Your task to perform on an android device: empty trash in the gmail app Image 0: 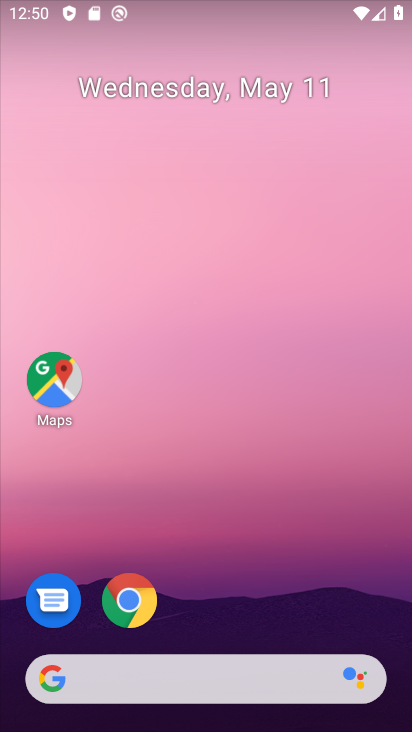
Step 0: drag from (266, 577) to (283, 198)
Your task to perform on an android device: empty trash in the gmail app Image 1: 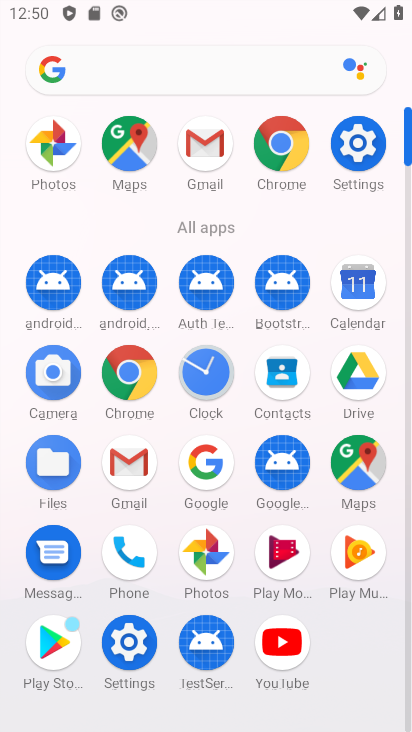
Step 1: click (217, 541)
Your task to perform on an android device: empty trash in the gmail app Image 2: 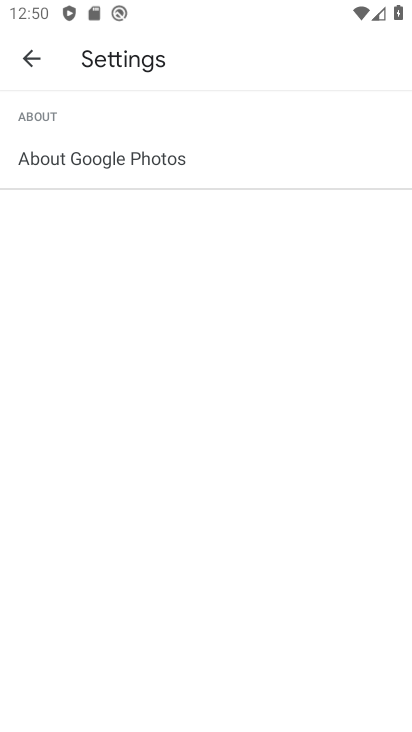
Step 2: click (34, 53)
Your task to perform on an android device: empty trash in the gmail app Image 3: 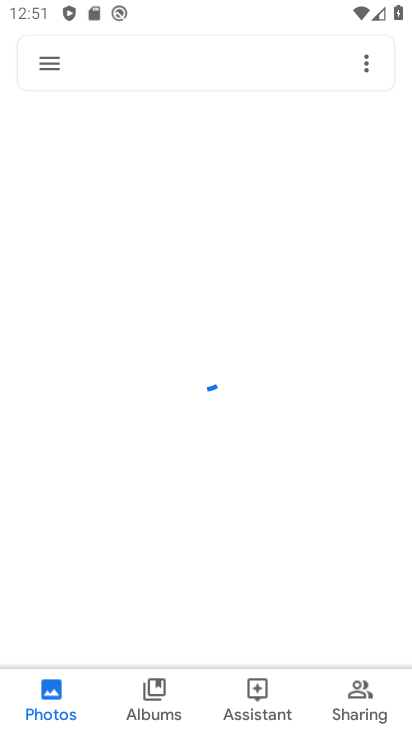
Step 3: click (45, 64)
Your task to perform on an android device: empty trash in the gmail app Image 4: 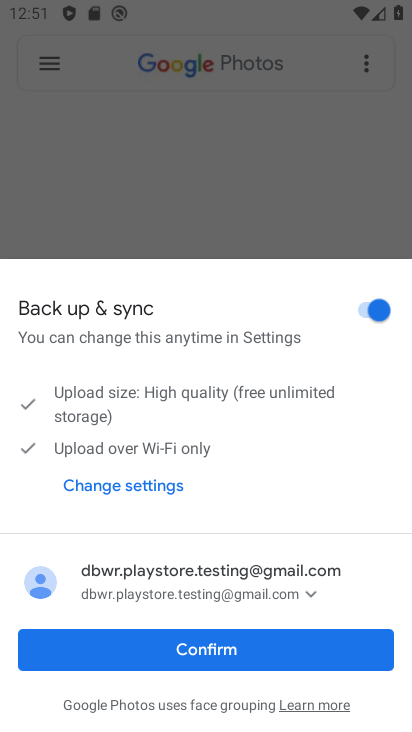
Step 4: click (209, 643)
Your task to perform on an android device: empty trash in the gmail app Image 5: 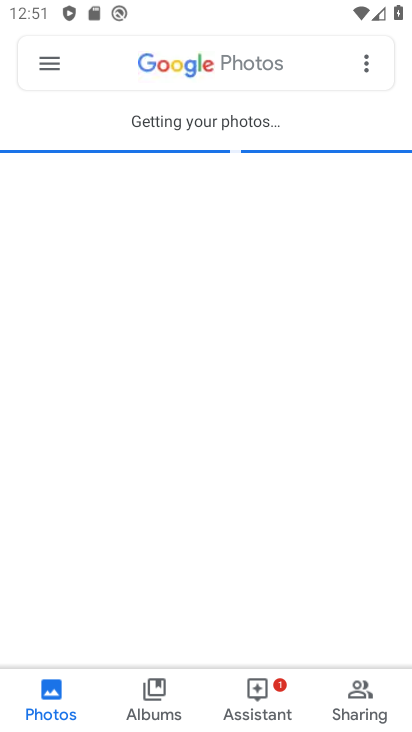
Step 5: click (48, 62)
Your task to perform on an android device: empty trash in the gmail app Image 6: 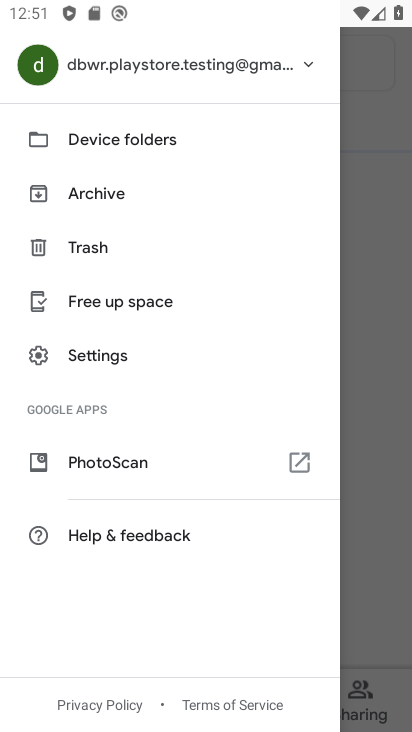
Step 6: click (105, 245)
Your task to perform on an android device: empty trash in the gmail app Image 7: 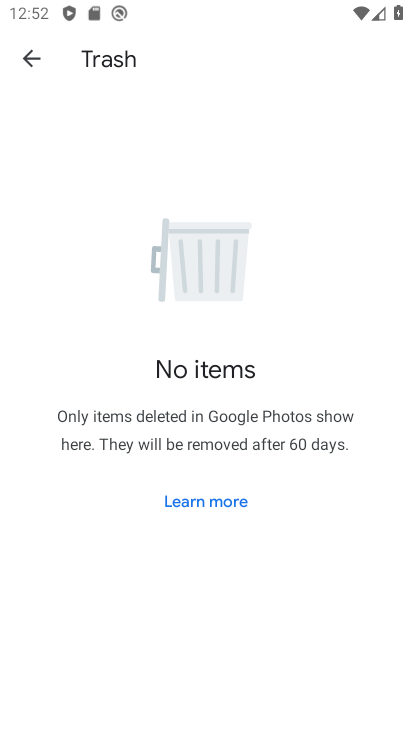
Step 7: task complete